Your task to perform on an android device: Open calendar and show me the fourth week of next month Image 0: 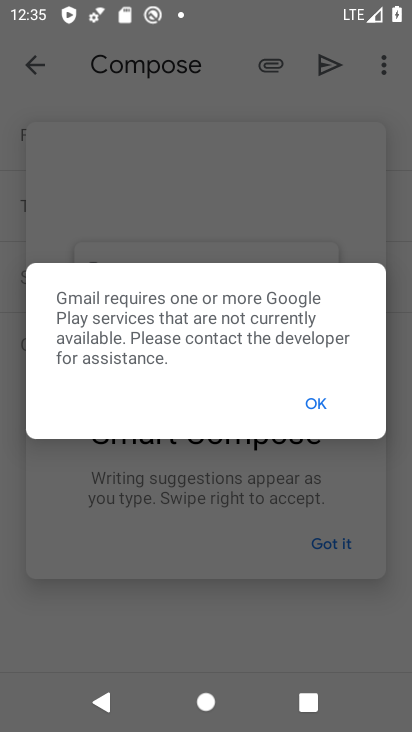
Step 0: press home button
Your task to perform on an android device: Open calendar and show me the fourth week of next month Image 1: 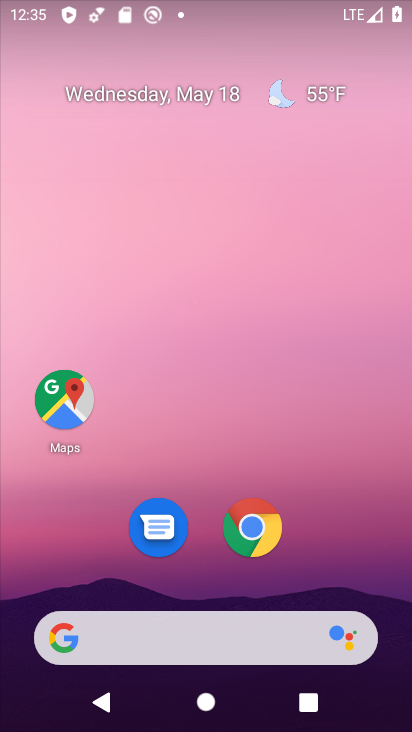
Step 1: drag from (316, 502) to (308, 705)
Your task to perform on an android device: Open calendar and show me the fourth week of next month Image 2: 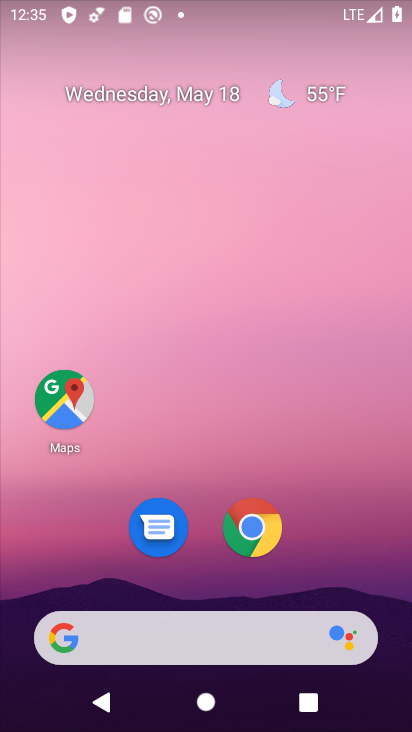
Step 2: click (157, 93)
Your task to perform on an android device: Open calendar and show me the fourth week of next month Image 3: 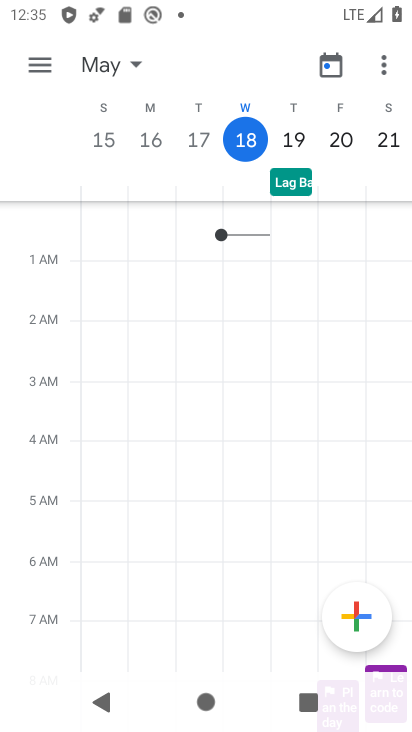
Step 3: click (133, 56)
Your task to perform on an android device: Open calendar and show me the fourth week of next month Image 4: 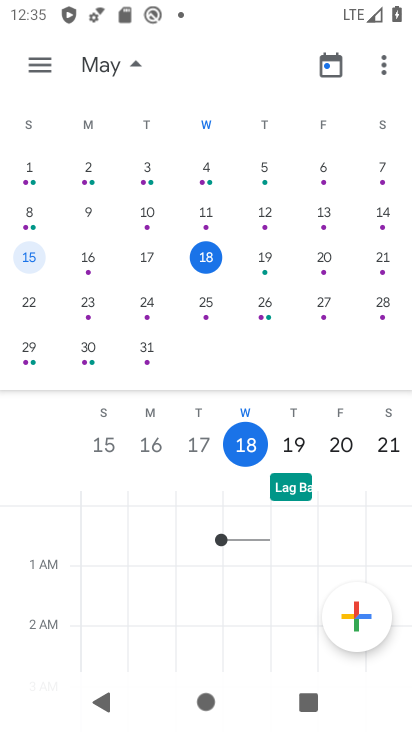
Step 4: drag from (353, 249) to (2, 479)
Your task to perform on an android device: Open calendar and show me the fourth week of next month Image 5: 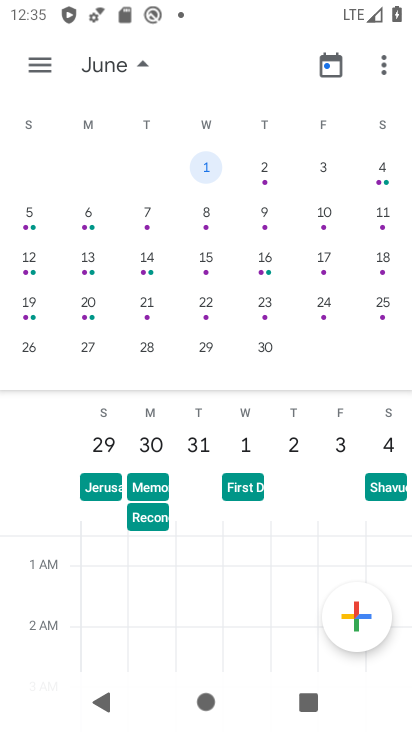
Step 5: click (29, 305)
Your task to perform on an android device: Open calendar and show me the fourth week of next month Image 6: 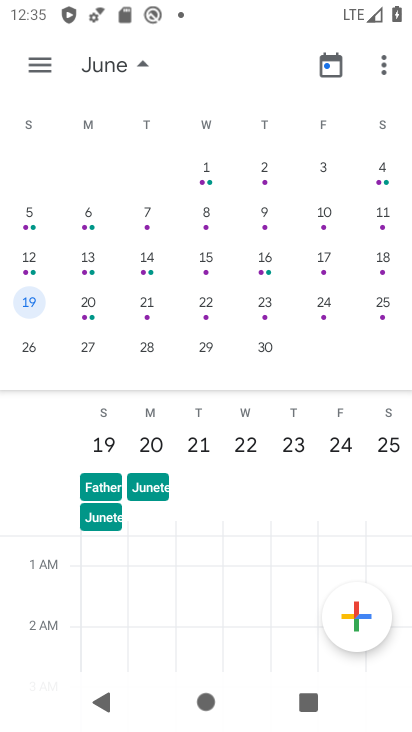
Step 6: task complete